Your task to perform on an android device: Open wifi settings Image 0: 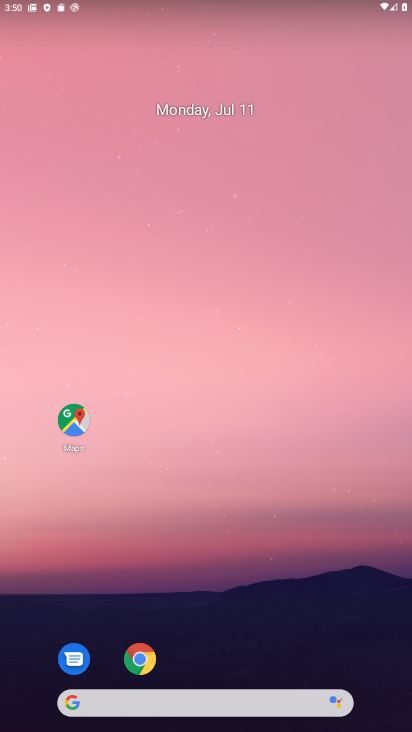
Step 0: drag from (182, 4) to (197, 604)
Your task to perform on an android device: Open wifi settings Image 1: 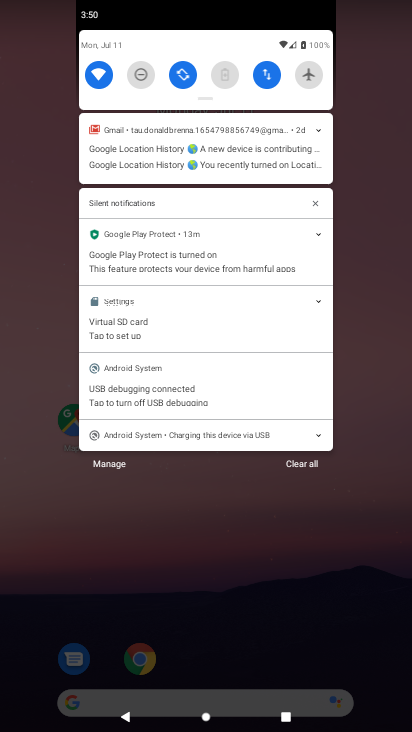
Step 1: click (106, 79)
Your task to perform on an android device: Open wifi settings Image 2: 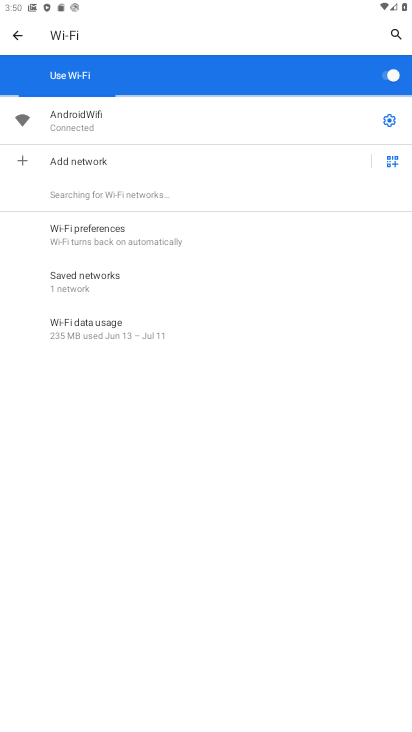
Step 2: task complete